Your task to perform on an android device: turn off improve location accuracy Image 0: 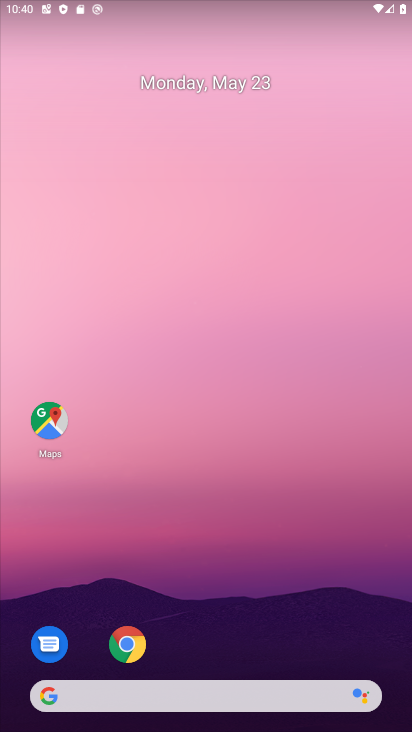
Step 0: drag from (252, 591) to (179, 19)
Your task to perform on an android device: turn off improve location accuracy Image 1: 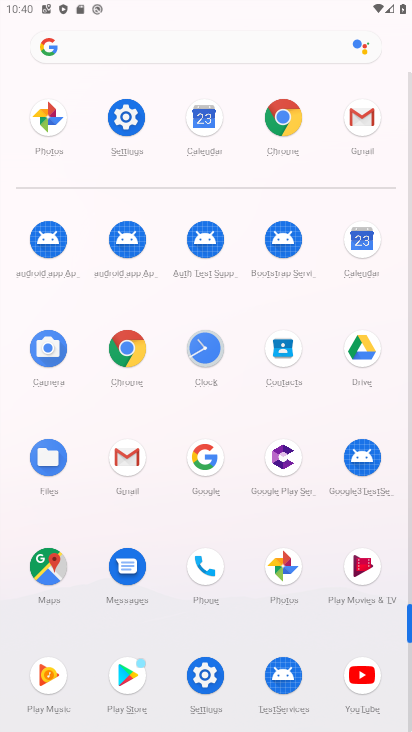
Step 1: click (112, 106)
Your task to perform on an android device: turn off improve location accuracy Image 2: 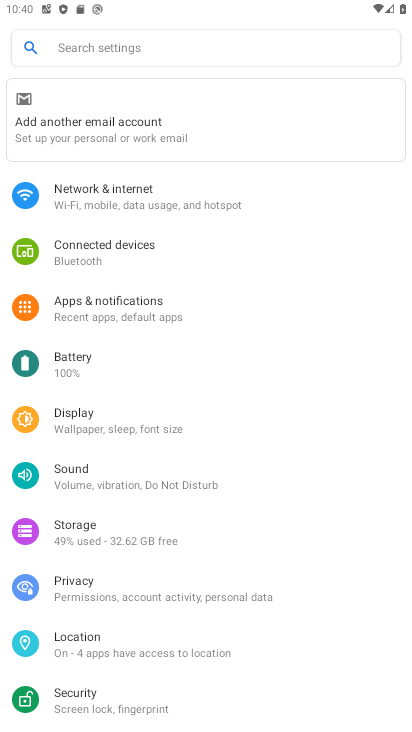
Step 2: click (106, 639)
Your task to perform on an android device: turn off improve location accuracy Image 3: 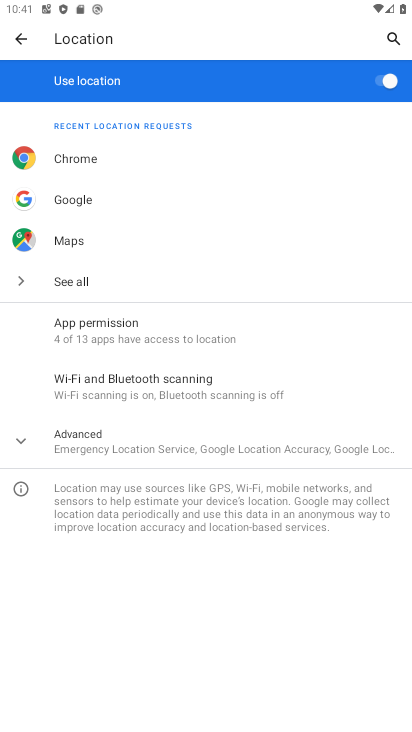
Step 3: click (104, 447)
Your task to perform on an android device: turn off improve location accuracy Image 4: 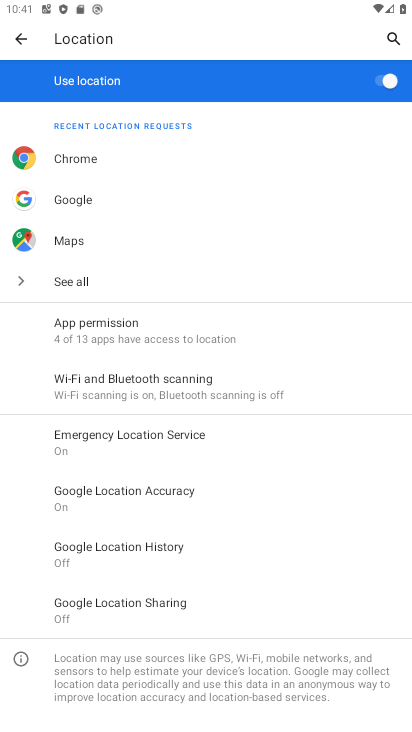
Step 4: click (112, 502)
Your task to perform on an android device: turn off improve location accuracy Image 5: 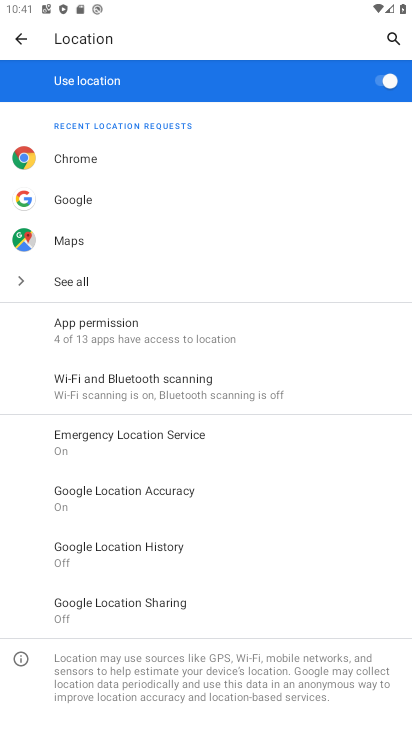
Step 5: click (148, 498)
Your task to perform on an android device: turn off improve location accuracy Image 6: 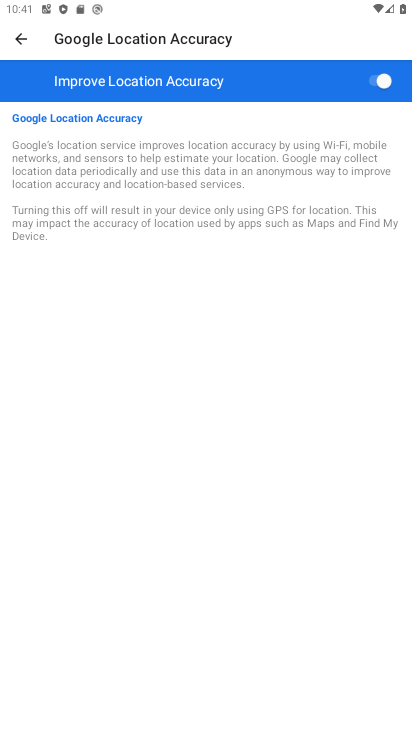
Step 6: task complete